Your task to perform on an android device: Open calendar and show me the first week of next month Image 0: 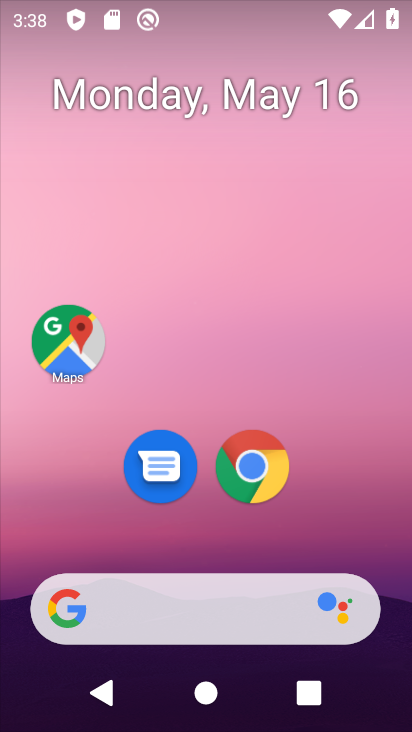
Step 0: drag from (219, 615) to (317, 70)
Your task to perform on an android device: Open calendar and show me the first week of next month Image 1: 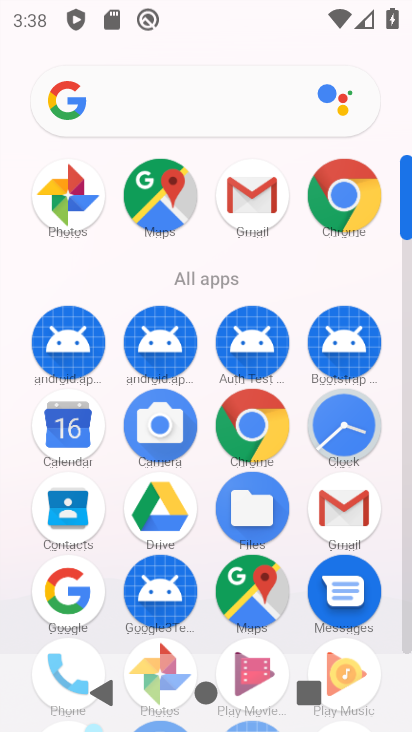
Step 1: click (81, 415)
Your task to perform on an android device: Open calendar and show me the first week of next month Image 2: 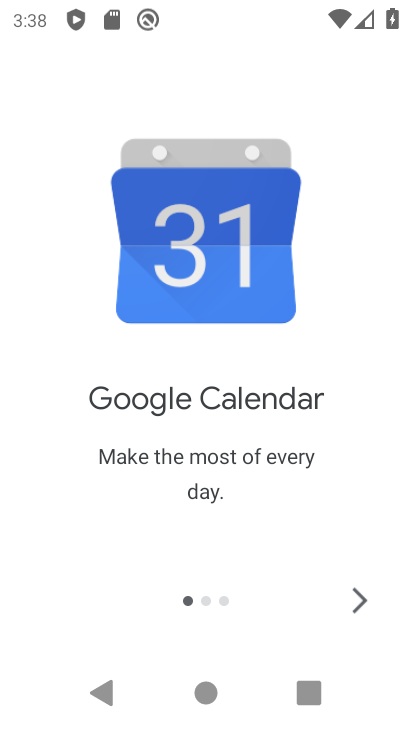
Step 2: click (338, 607)
Your task to perform on an android device: Open calendar and show me the first week of next month Image 3: 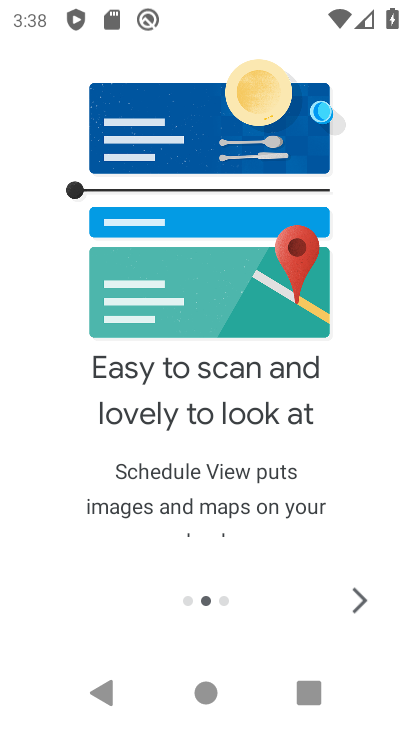
Step 3: click (369, 580)
Your task to perform on an android device: Open calendar and show me the first week of next month Image 4: 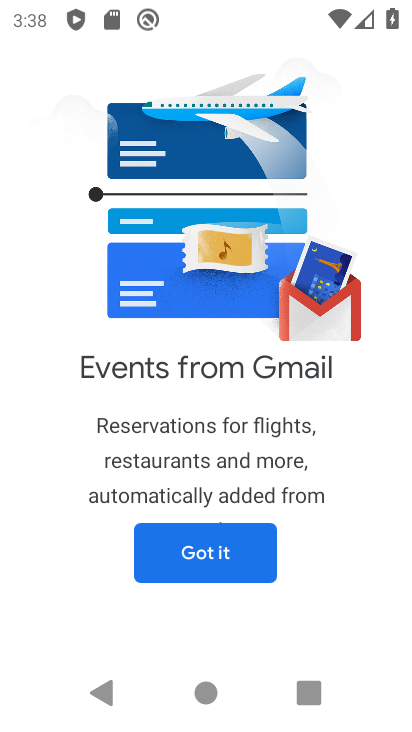
Step 4: click (215, 542)
Your task to perform on an android device: Open calendar and show me the first week of next month Image 5: 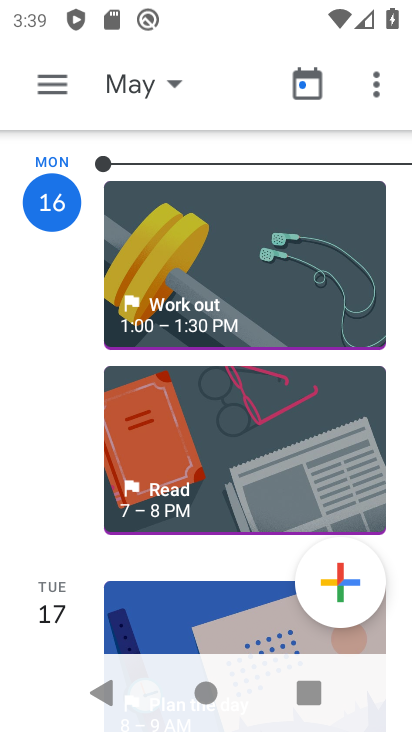
Step 5: click (62, 99)
Your task to perform on an android device: Open calendar and show me the first week of next month Image 6: 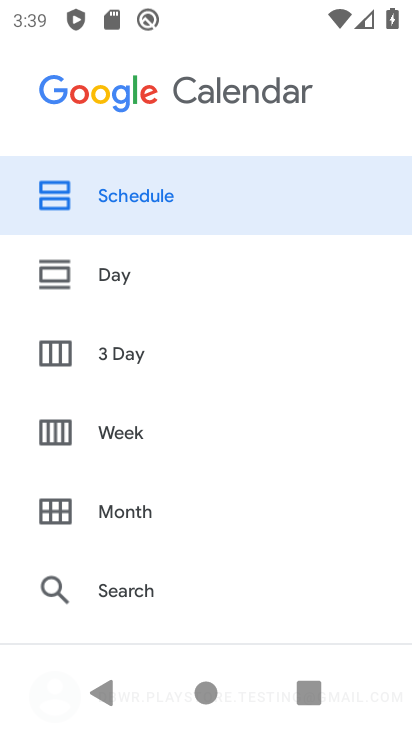
Step 6: click (120, 510)
Your task to perform on an android device: Open calendar and show me the first week of next month Image 7: 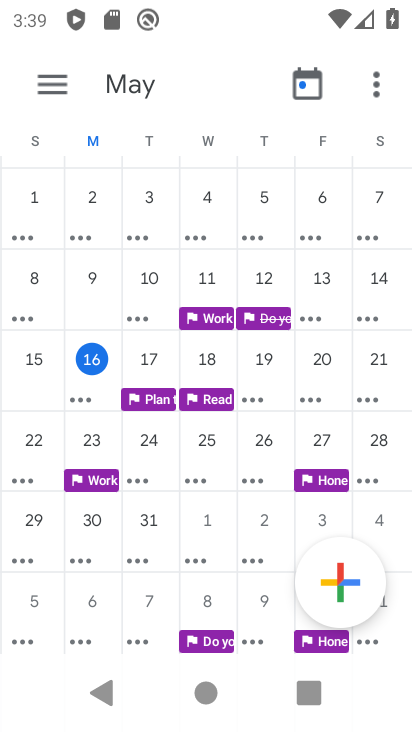
Step 7: drag from (305, 402) to (26, 412)
Your task to perform on an android device: Open calendar and show me the first week of next month Image 8: 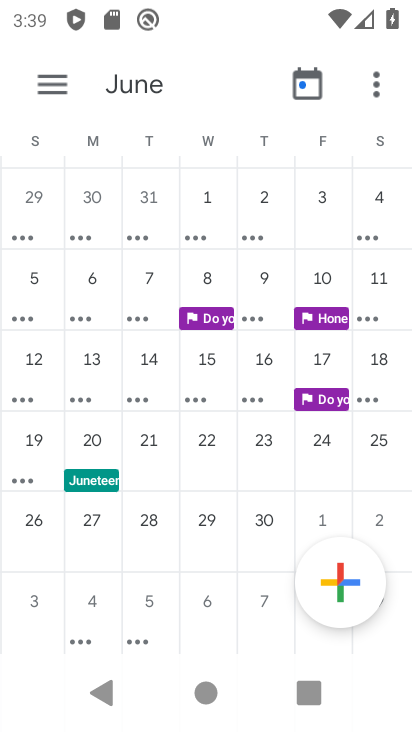
Step 8: click (95, 290)
Your task to perform on an android device: Open calendar and show me the first week of next month Image 9: 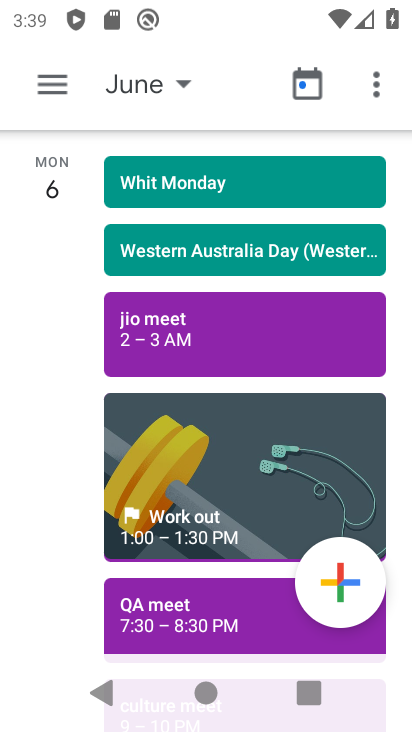
Step 9: task complete